Your task to perform on an android device: read, delete, or share a saved page in the chrome app Image 0: 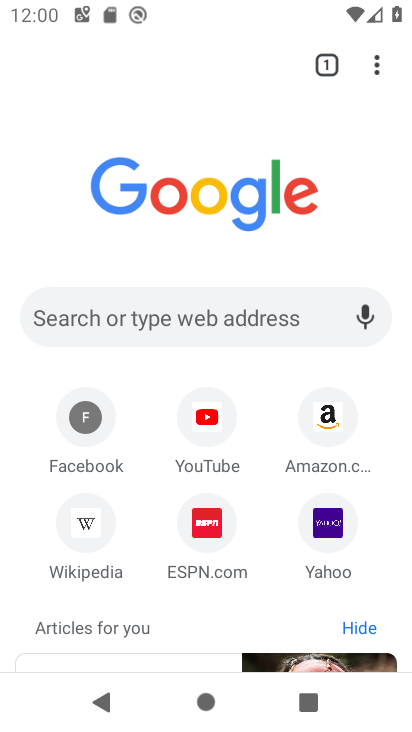
Step 0: press home button
Your task to perform on an android device: read, delete, or share a saved page in the chrome app Image 1: 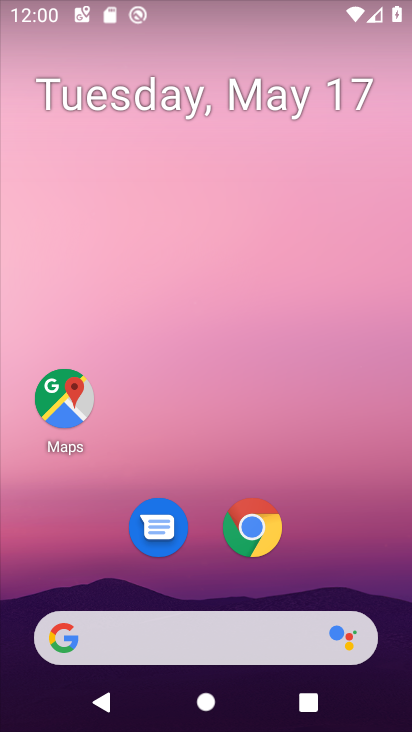
Step 1: click (267, 536)
Your task to perform on an android device: read, delete, or share a saved page in the chrome app Image 2: 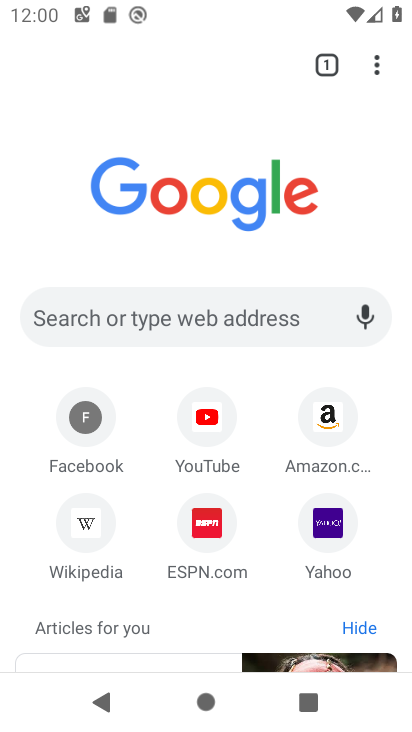
Step 2: click (371, 66)
Your task to perform on an android device: read, delete, or share a saved page in the chrome app Image 3: 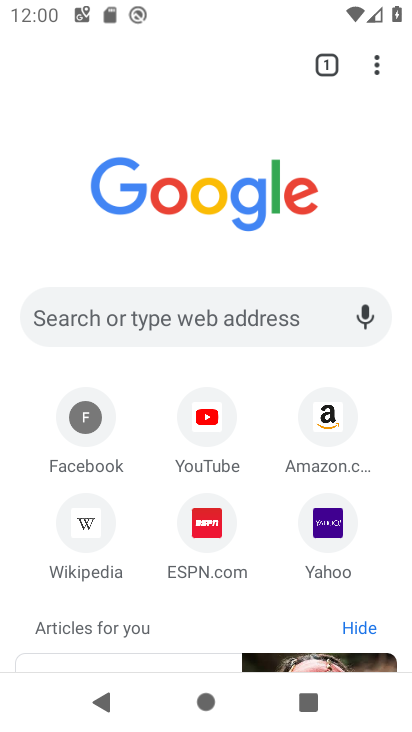
Step 3: task complete